Your task to perform on an android device: install app "Duolingo: language lessons" Image 0: 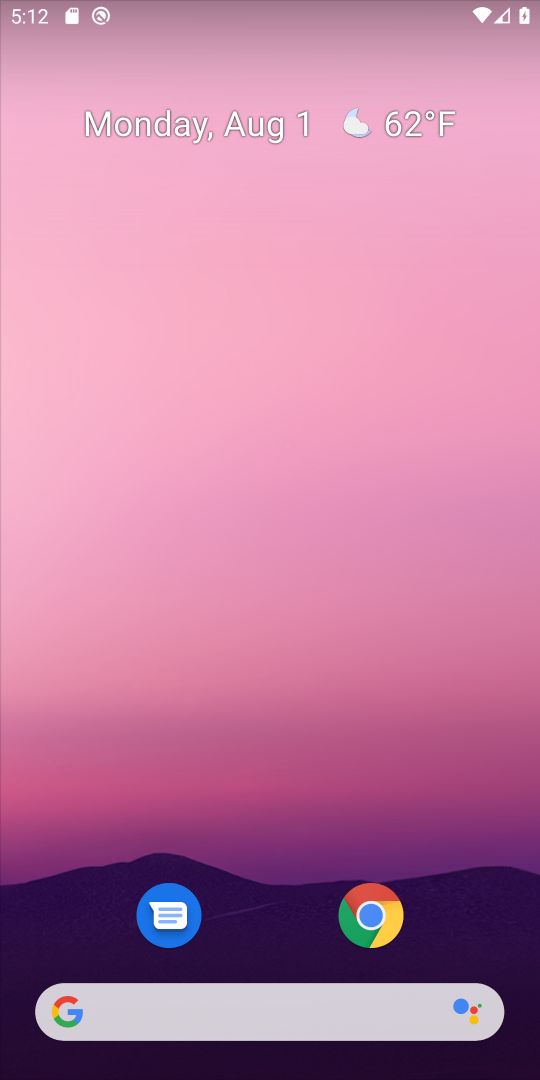
Step 0: drag from (228, 785) to (241, 90)
Your task to perform on an android device: install app "Duolingo: language lessons" Image 1: 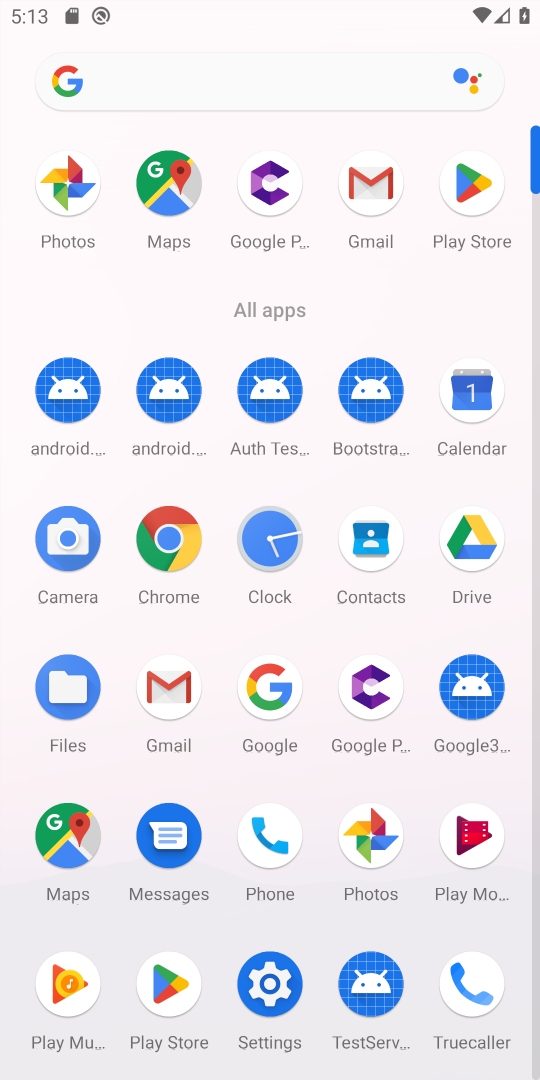
Step 1: click (483, 170)
Your task to perform on an android device: install app "Duolingo: language lessons" Image 2: 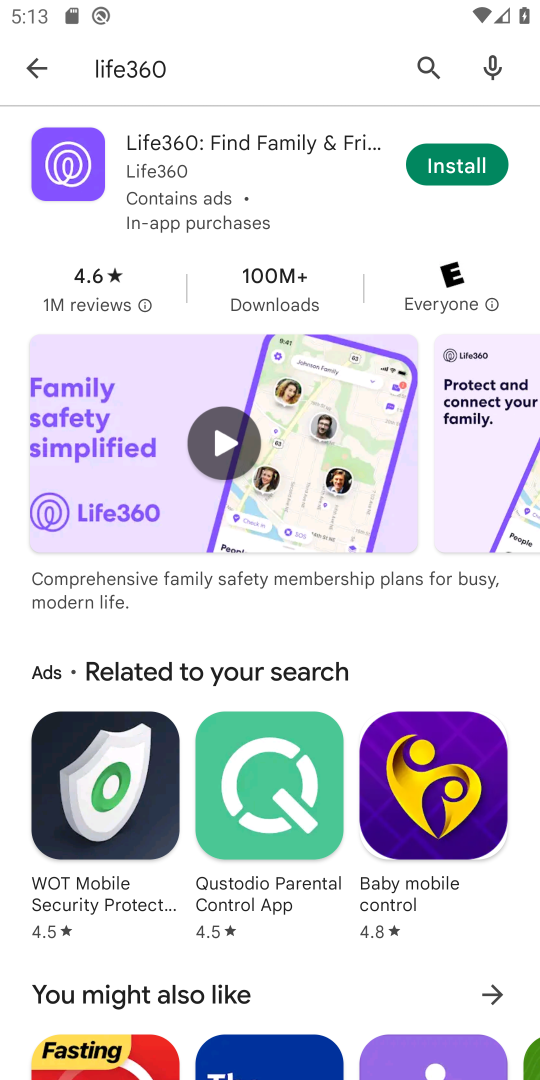
Step 2: click (429, 53)
Your task to perform on an android device: install app "Duolingo: language lessons" Image 3: 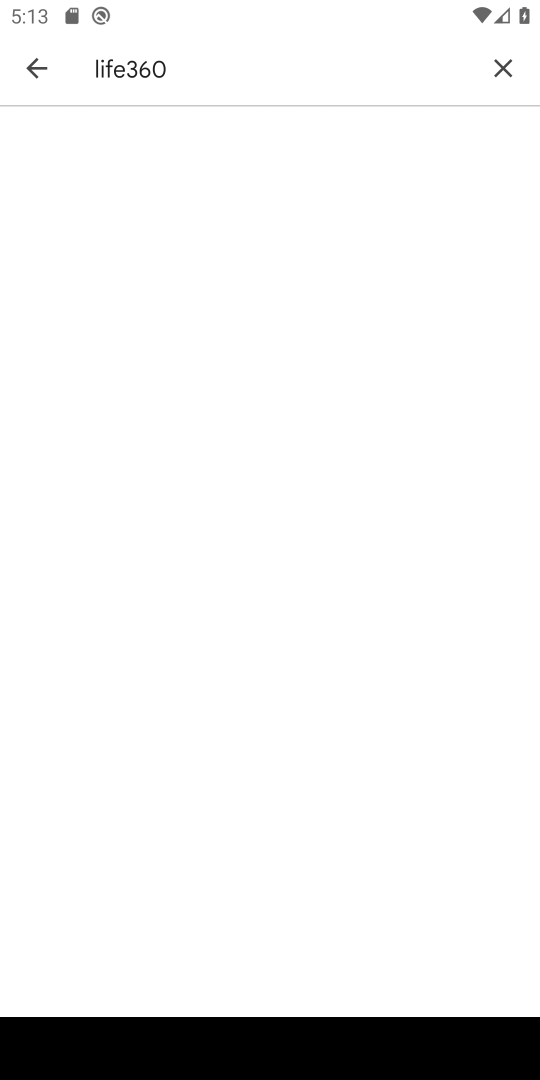
Step 3: click (501, 65)
Your task to perform on an android device: install app "Duolingo: language lessons" Image 4: 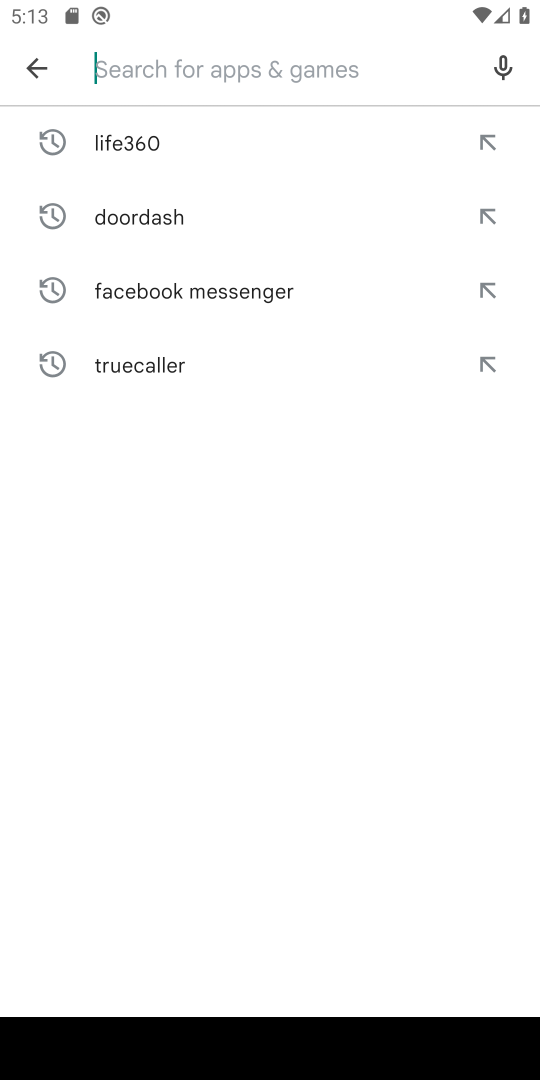
Step 4: click (221, 74)
Your task to perform on an android device: install app "Duolingo: language lessons" Image 5: 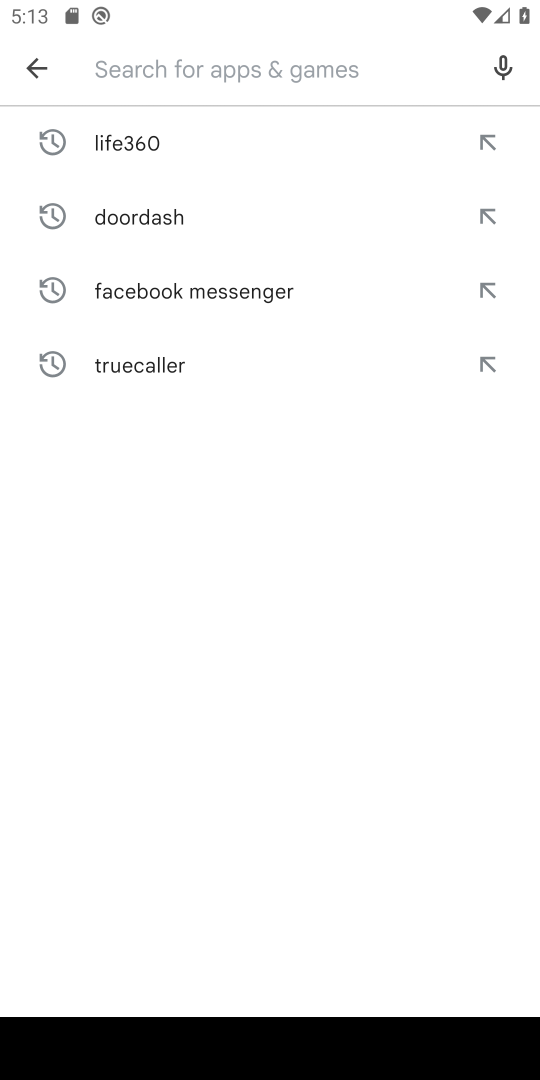
Step 5: click (502, 52)
Your task to perform on an android device: install app "Duolingo: language lessons" Image 6: 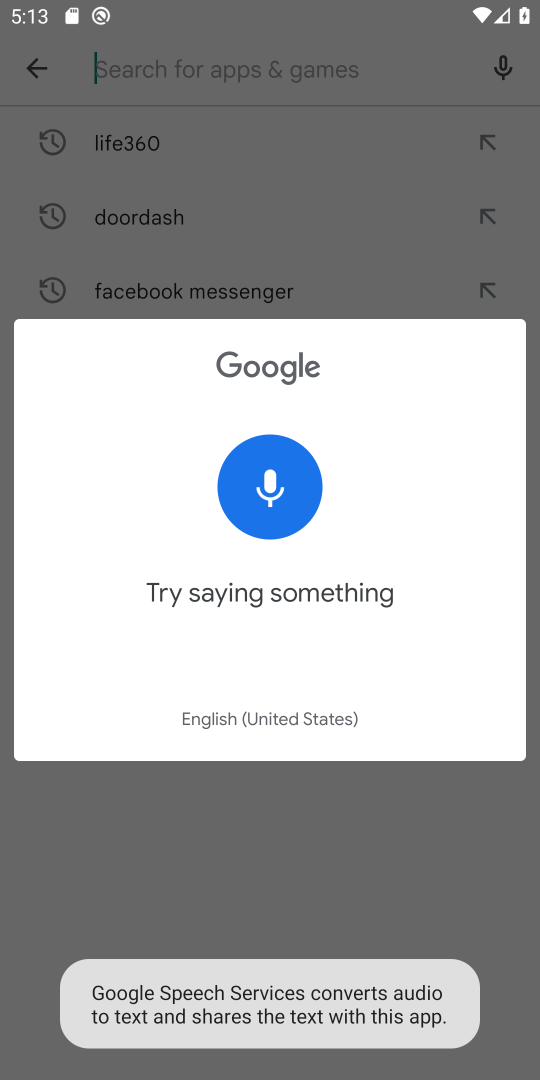
Step 6: click (64, 65)
Your task to perform on an android device: install app "Duolingo: language lessons" Image 7: 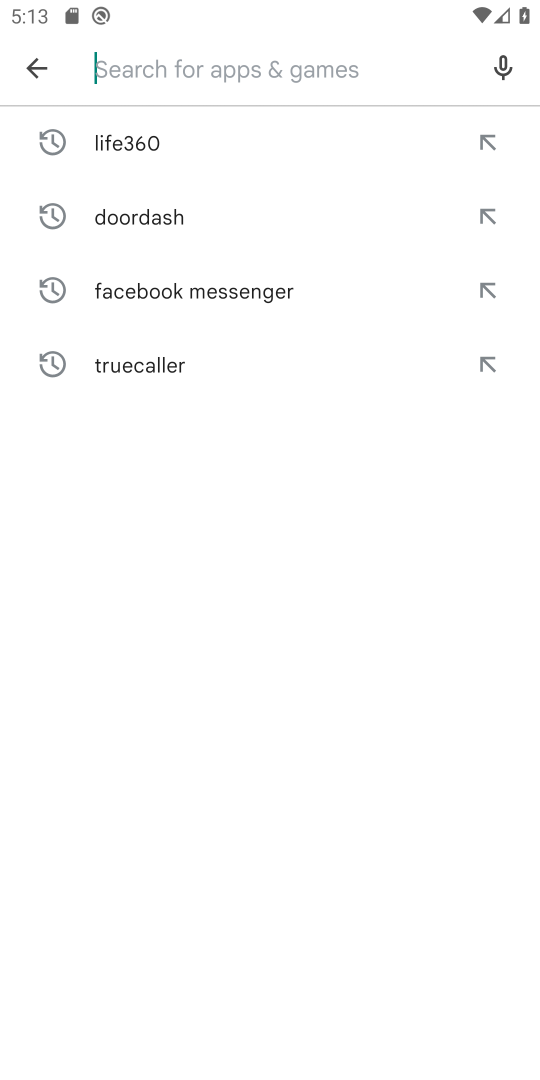
Step 7: type "duolingo"
Your task to perform on an android device: install app "Duolingo: language lessons" Image 8: 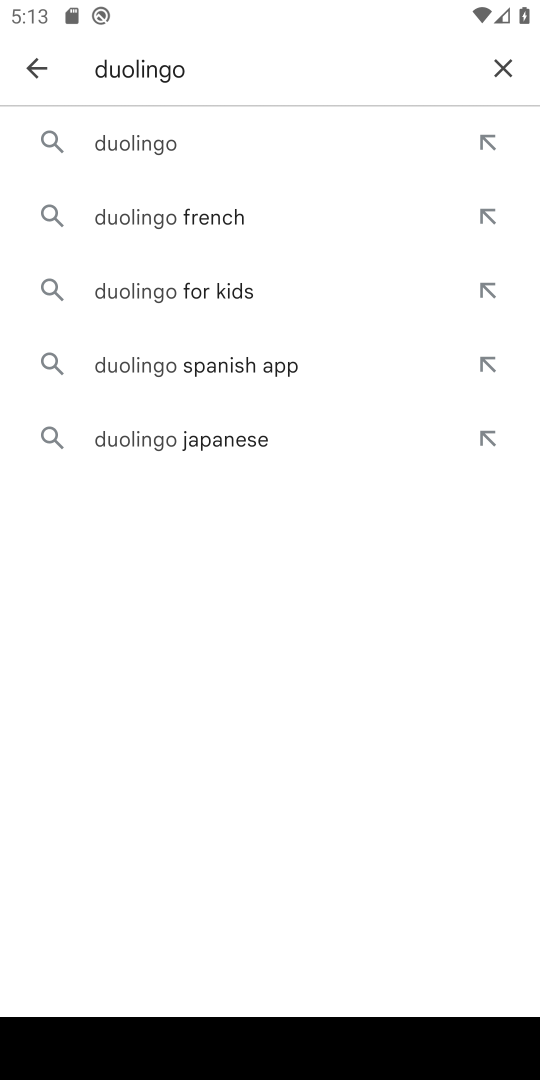
Step 8: click (173, 145)
Your task to perform on an android device: install app "Duolingo: language lessons" Image 9: 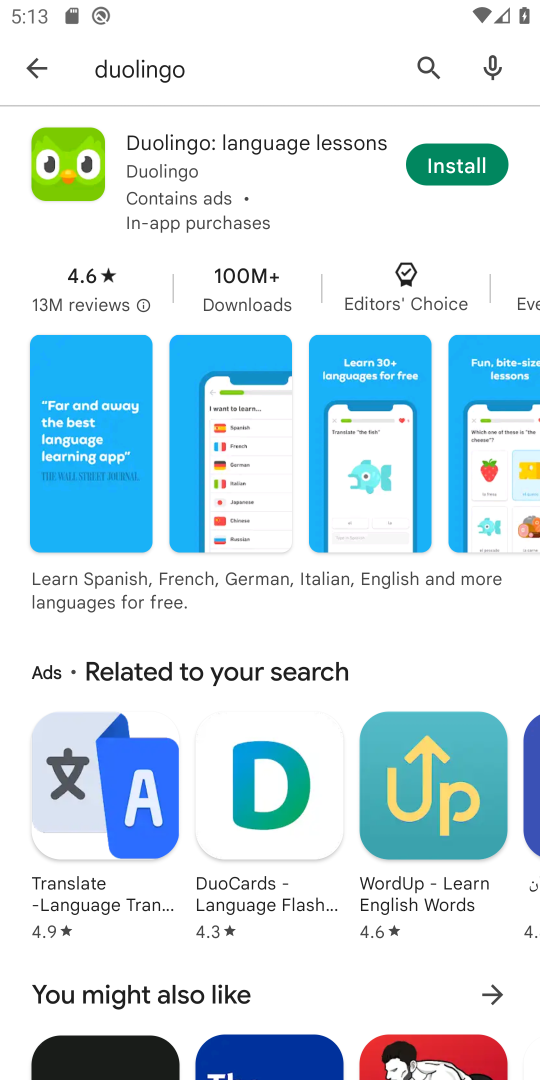
Step 9: click (446, 168)
Your task to perform on an android device: install app "Duolingo: language lessons" Image 10: 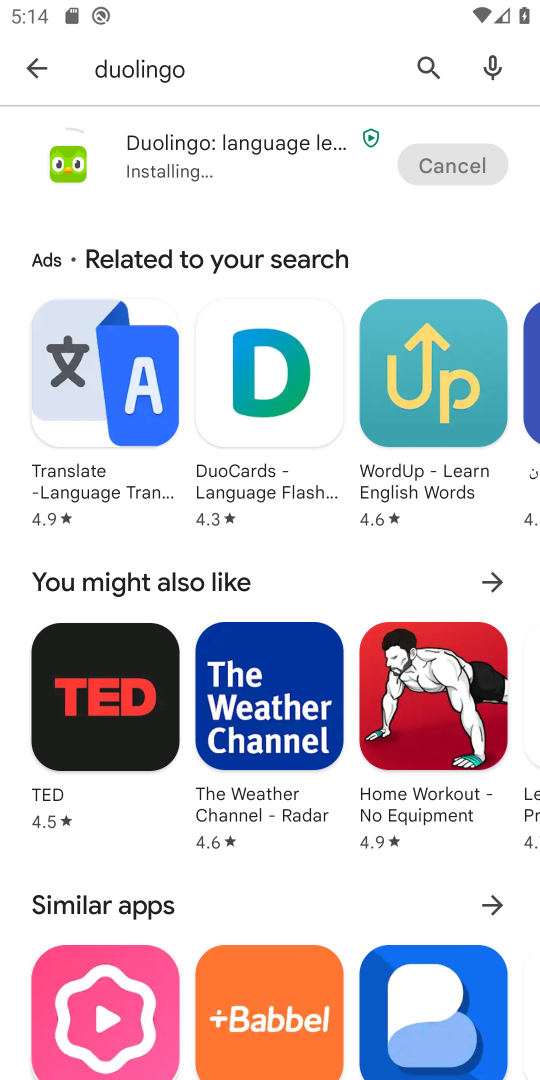
Step 10: click (37, 56)
Your task to perform on an android device: install app "Duolingo: language lessons" Image 11: 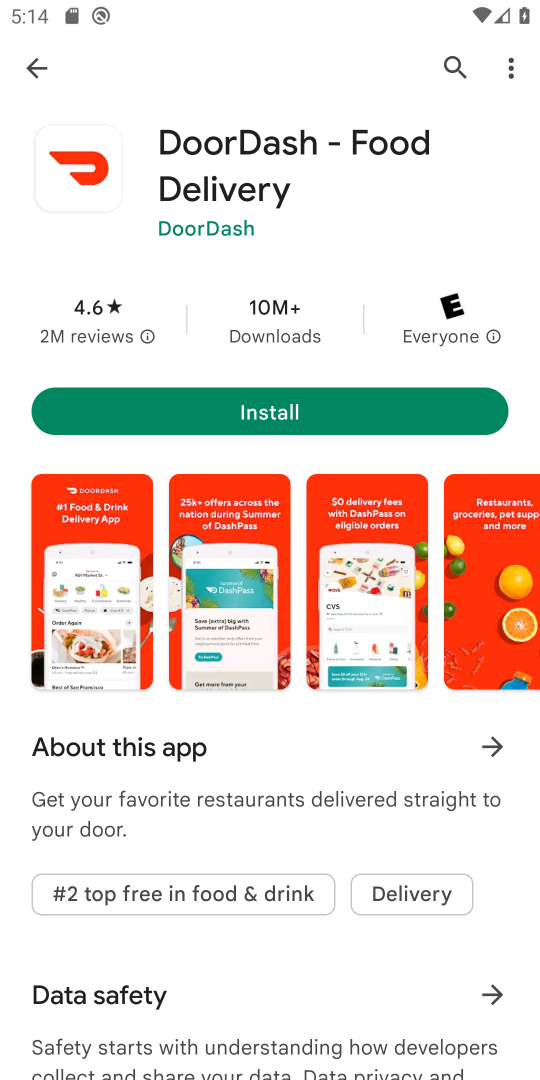
Step 11: click (457, 66)
Your task to perform on an android device: install app "Duolingo: language lessons" Image 12: 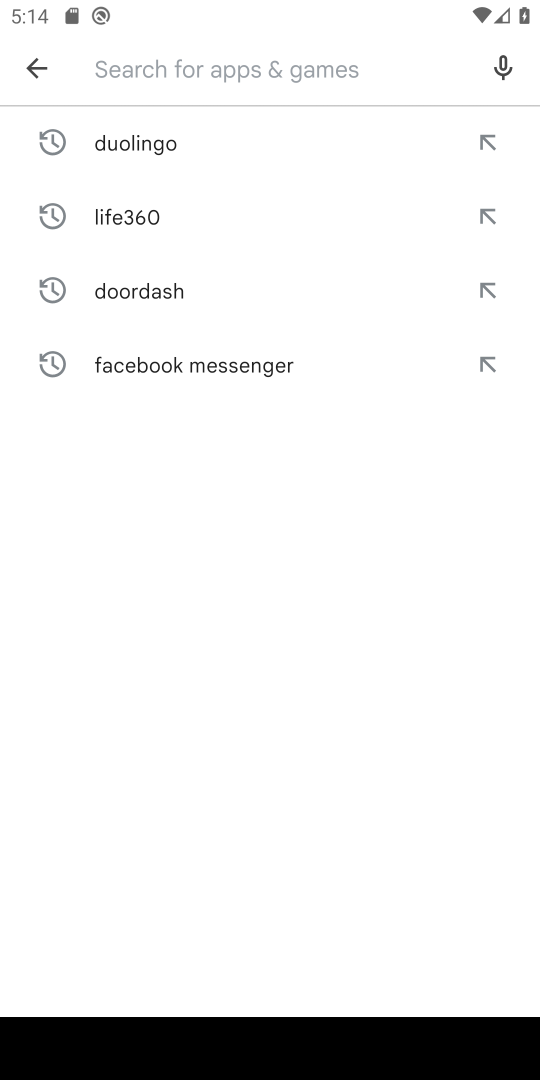
Step 12: click (123, 143)
Your task to perform on an android device: install app "Duolingo: language lessons" Image 13: 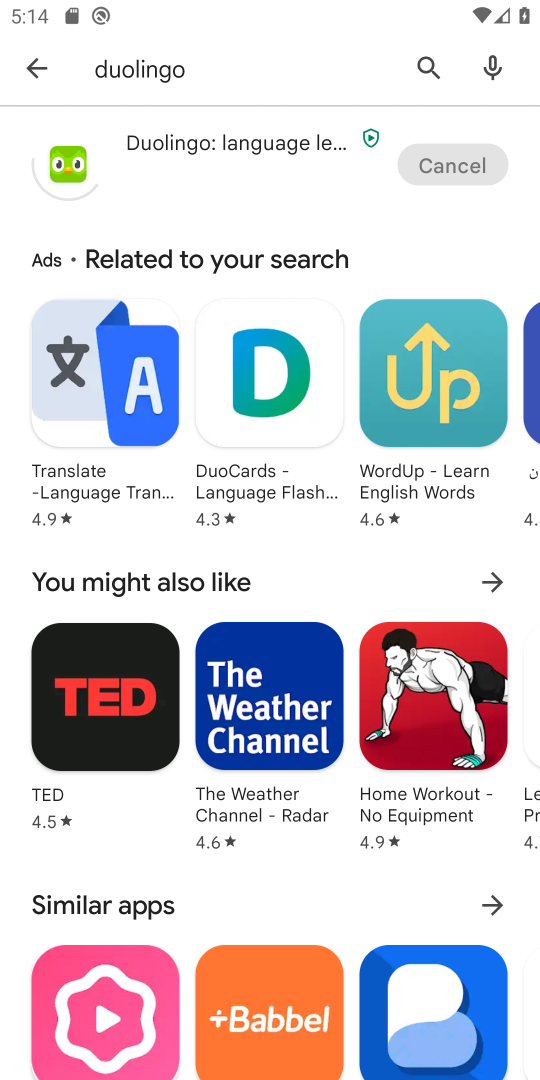
Step 13: click (45, 62)
Your task to perform on an android device: install app "Duolingo: language lessons" Image 14: 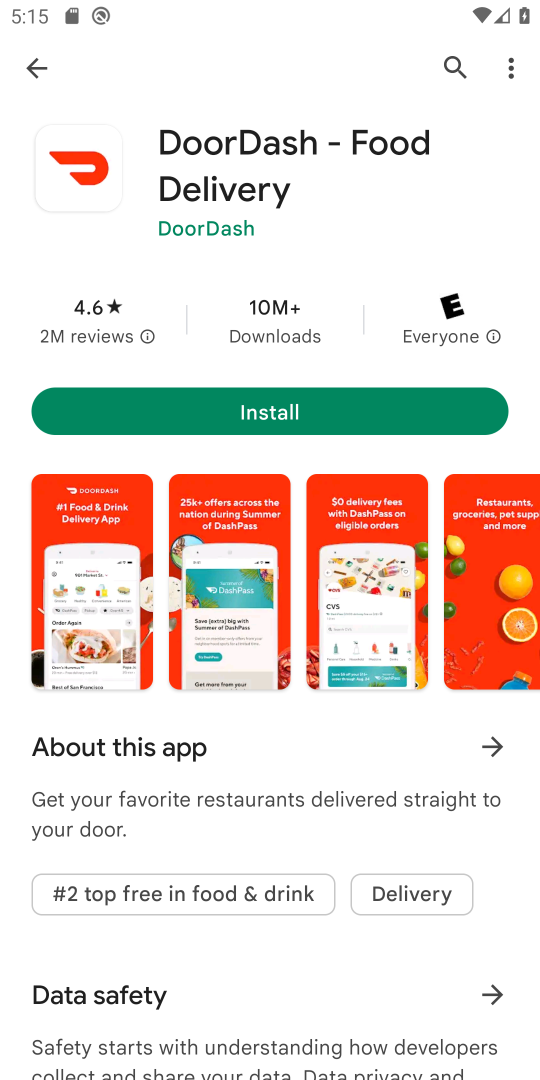
Step 14: click (454, 64)
Your task to perform on an android device: install app "Duolingo: language lessons" Image 15: 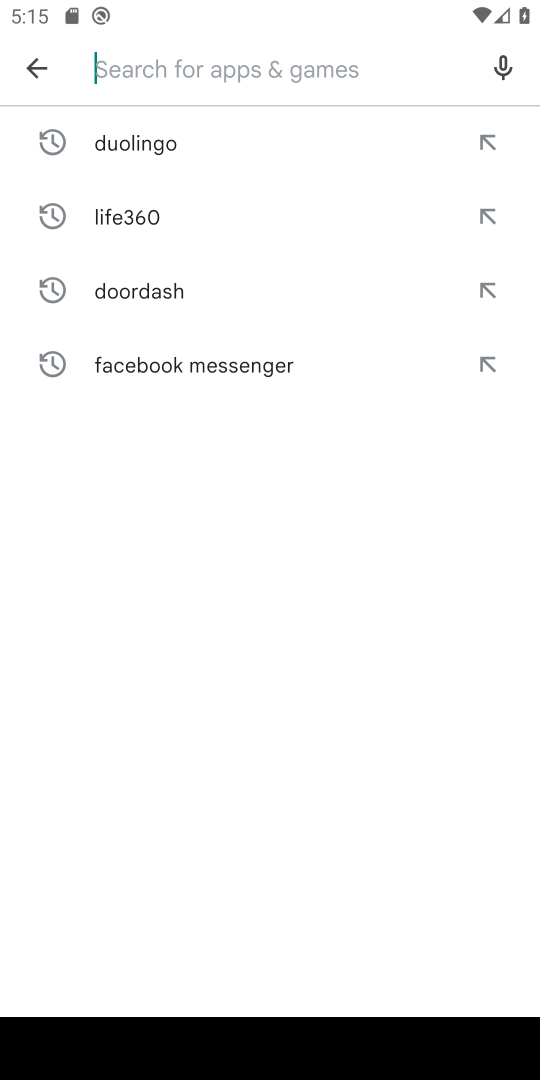
Step 15: click (169, 145)
Your task to perform on an android device: install app "Duolingo: language lessons" Image 16: 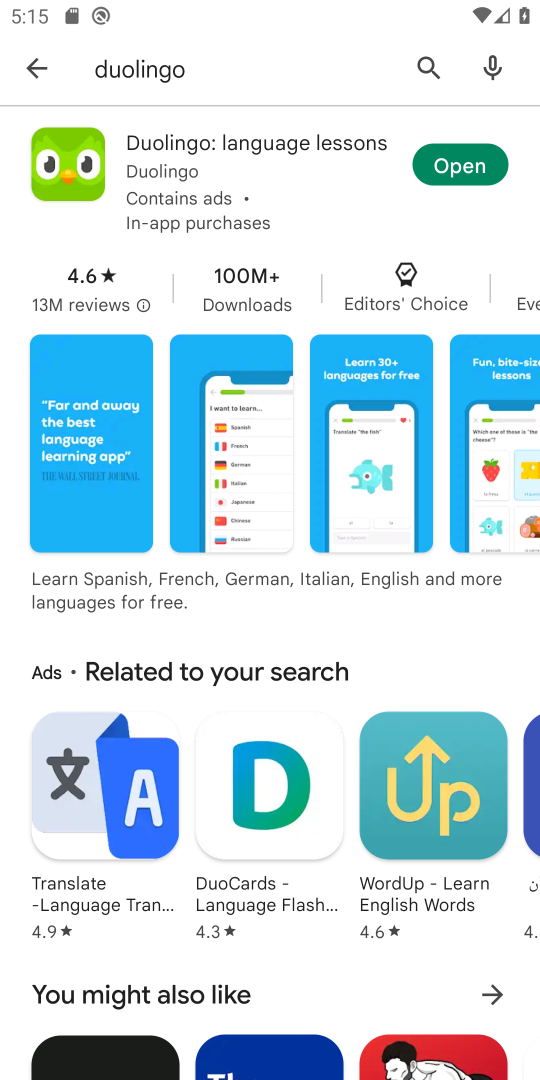
Step 16: task complete